Your task to perform on an android device: toggle location history Image 0: 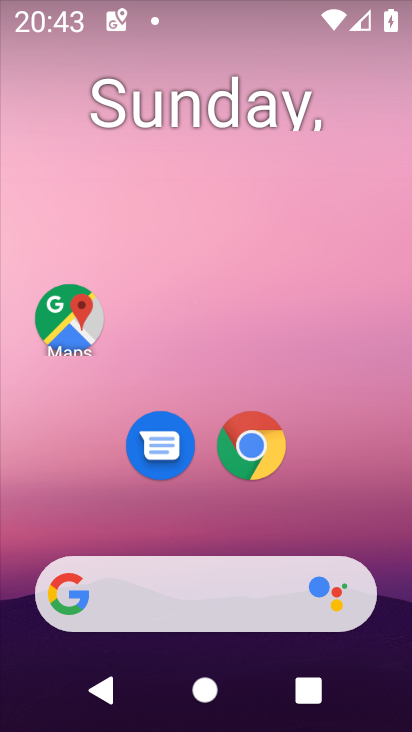
Step 0: press home button
Your task to perform on an android device: toggle location history Image 1: 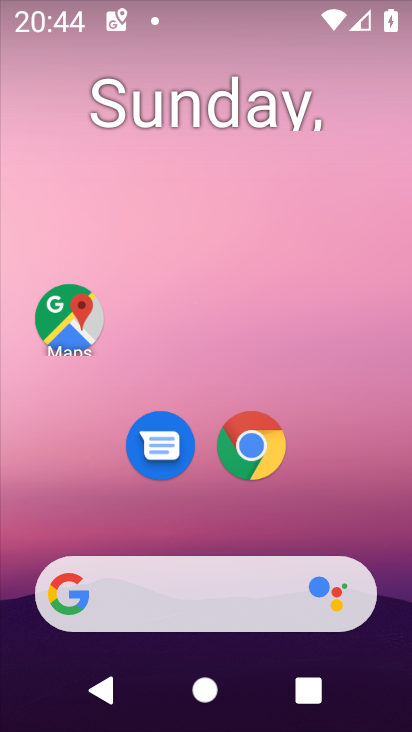
Step 1: drag from (36, 583) to (322, 107)
Your task to perform on an android device: toggle location history Image 2: 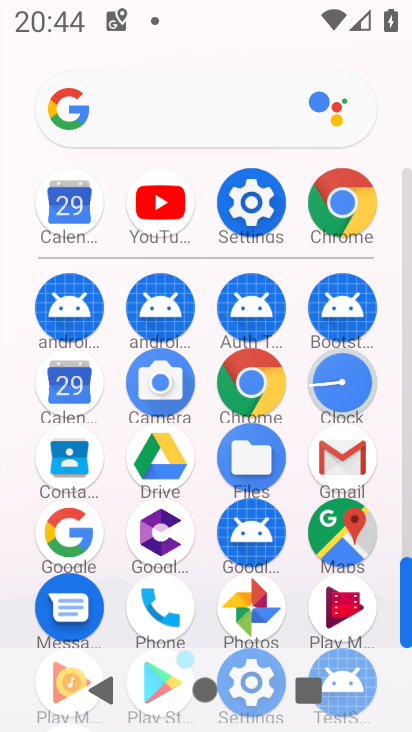
Step 2: click (250, 225)
Your task to perform on an android device: toggle location history Image 3: 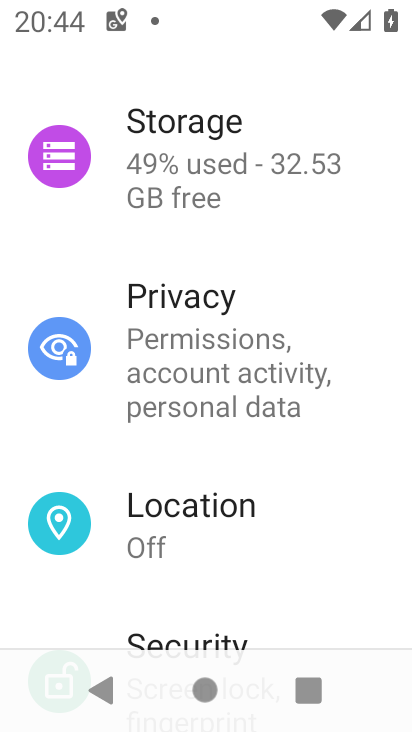
Step 3: click (130, 512)
Your task to perform on an android device: toggle location history Image 4: 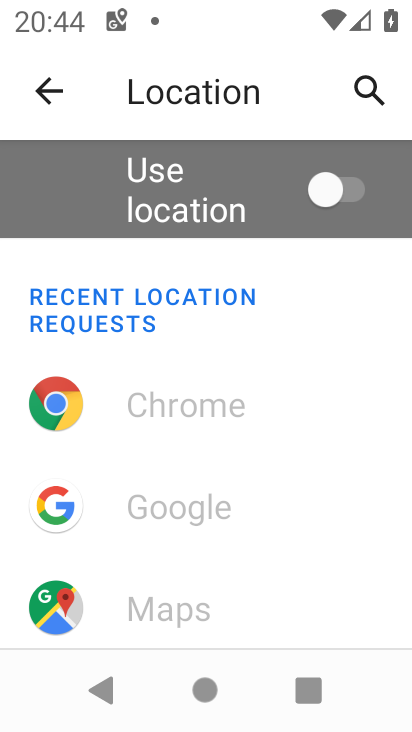
Step 4: drag from (10, 521) to (217, 82)
Your task to perform on an android device: toggle location history Image 5: 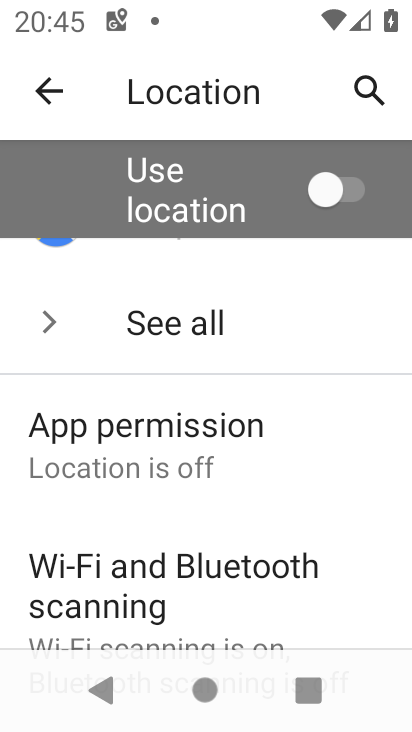
Step 5: drag from (9, 407) to (167, 142)
Your task to perform on an android device: toggle location history Image 6: 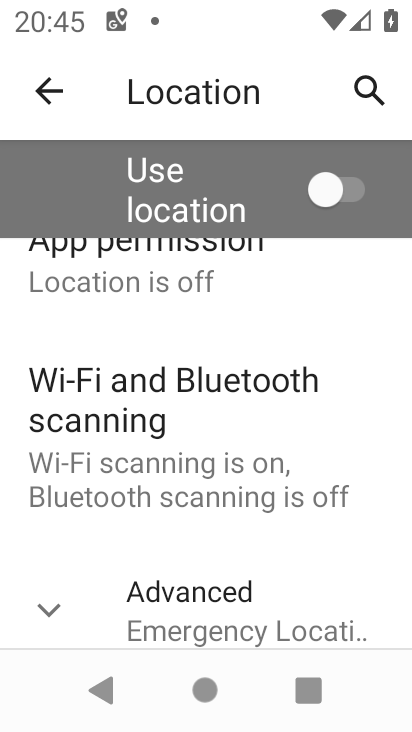
Step 6: click (99, 625)
Your task to perform on an android device: toggle location history Image 7: 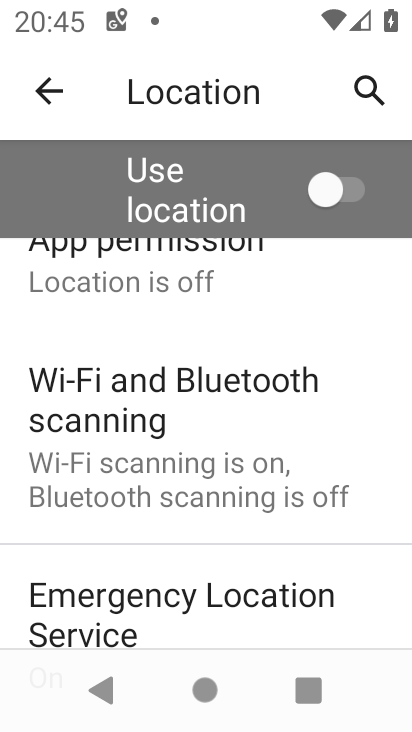
Step 7: drag from (13, 483) to (188, 151)
Your task to perform on an android device: toggle location history Image 8: 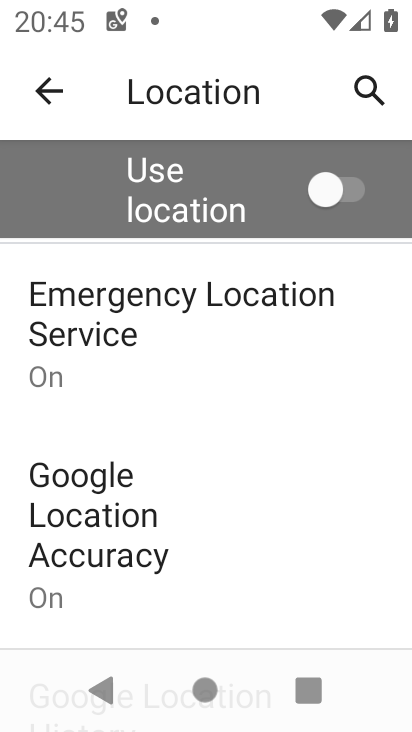
Step 8: drag from (5, 558) to (226, 233)
Your task to perform on an android device: toggle location history Image 9: 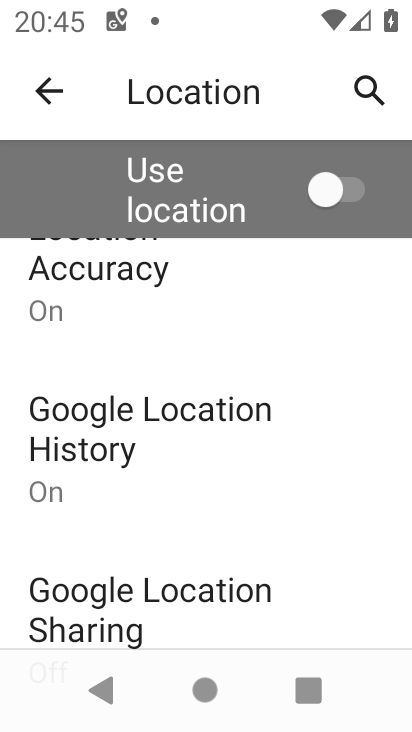
Step 9: click (152, 433)
Your task to perform on an android device: toggle location history Image 10: 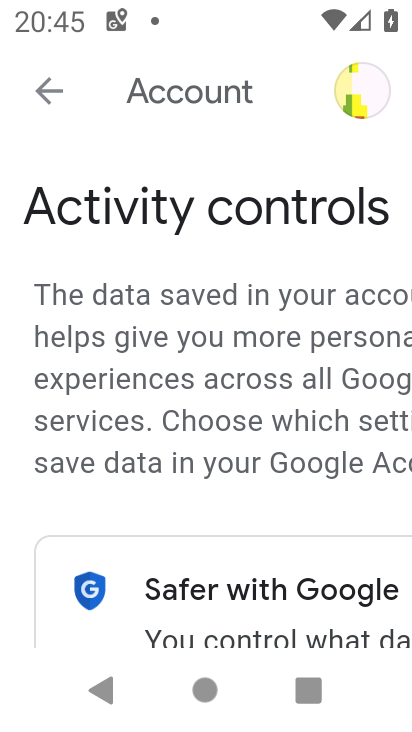
Step 10: drag from (18, 532) to (285, 82)
Your task to perform on an android device: toggle location history Image 11: 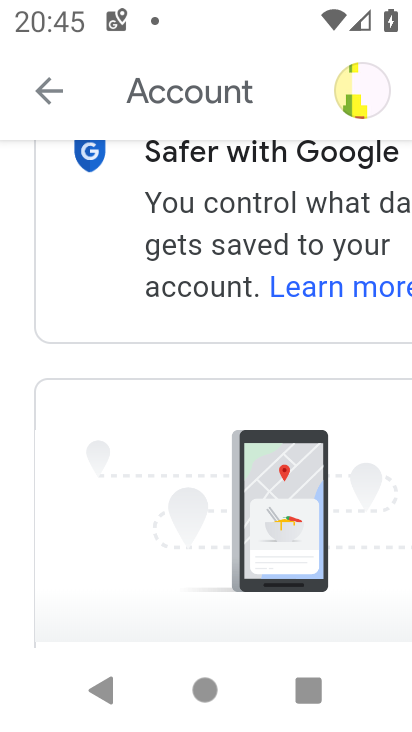
Step 11: drag from (4, 633) to (309, 158)
Your task to perform on an android device: toggle location history Image 12: 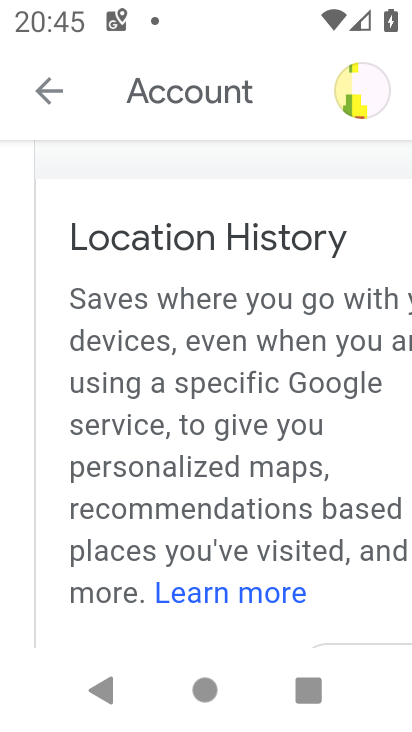
Step 12: drag from (7, 542) to (301, 130)
Your task to perform on an android device: toggle location history Image 13: 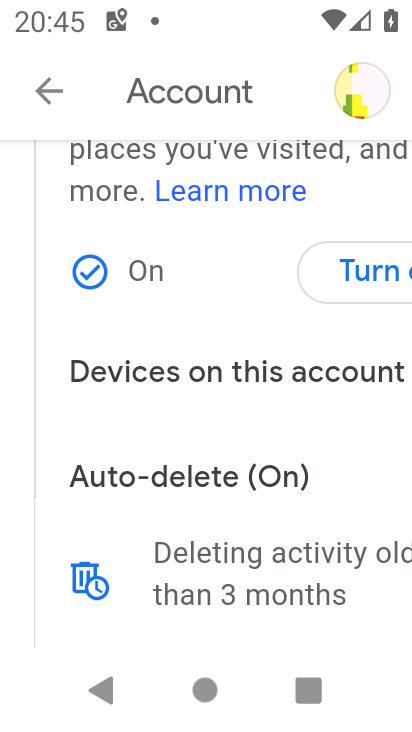
Step 13: click (334, 256)
Your task to perform on an android device: toggle location history Image 14: 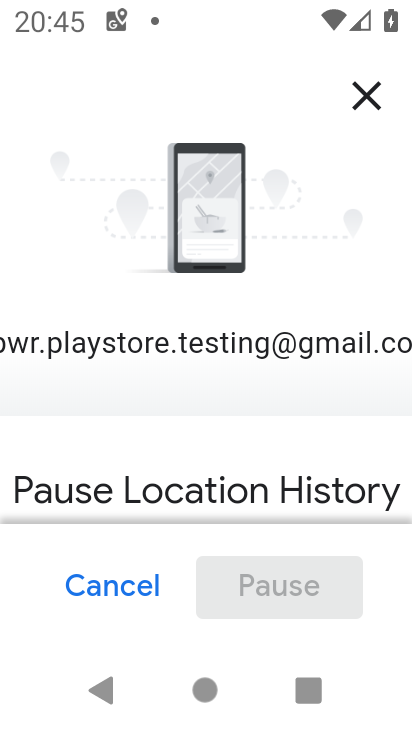
Step 14: click (269, 108)
Your task to perform on an android device: toggle location history Image 15: 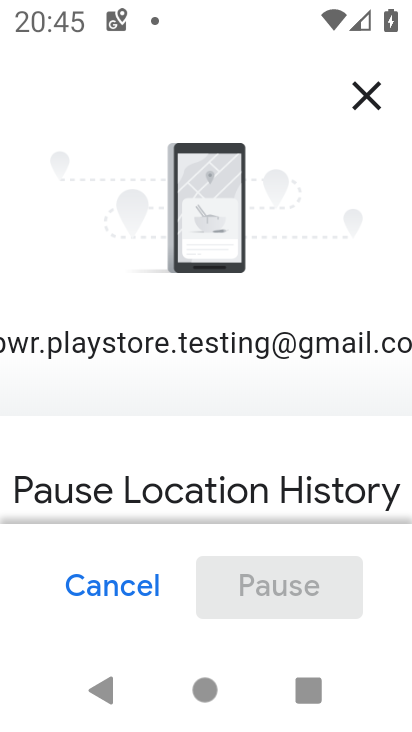
Step 15: drag from (13, 441) to (257, 107)
Your task to perform on an android device: toggle location history Image 16: 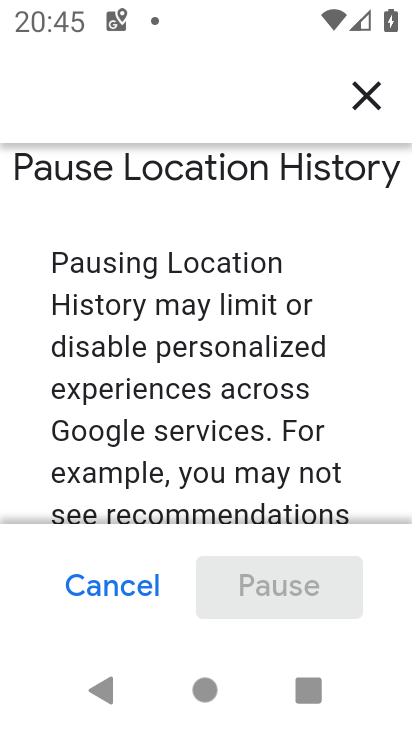
Step 16: drag from (39, 397) to (263, 120)
Your task to perform on an android device: toggle location history Image 17: 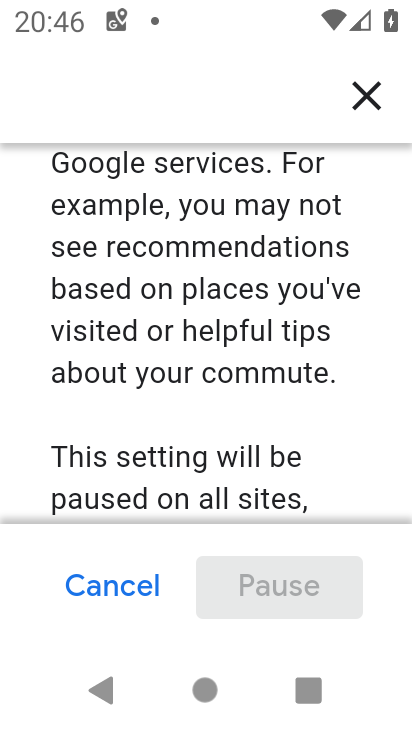
Step 17: drag from (1, 624) to (244, 125)
Your task to perform on an android device: toggle location history Image 18: 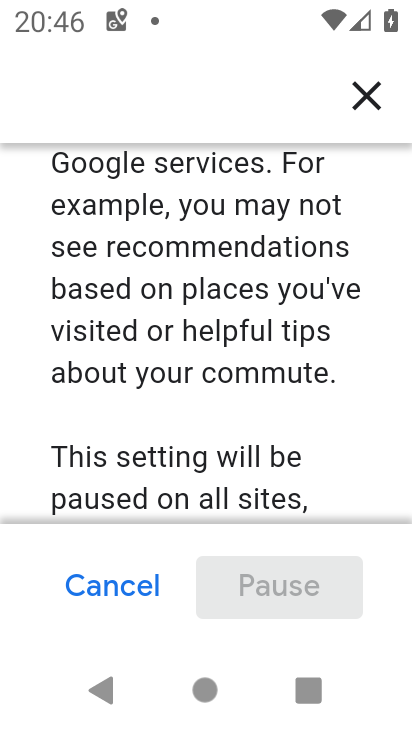
Step 18: drag from (0, 380) to (220, 169)
Your task to perform on an android device: toggle location history Image 19: 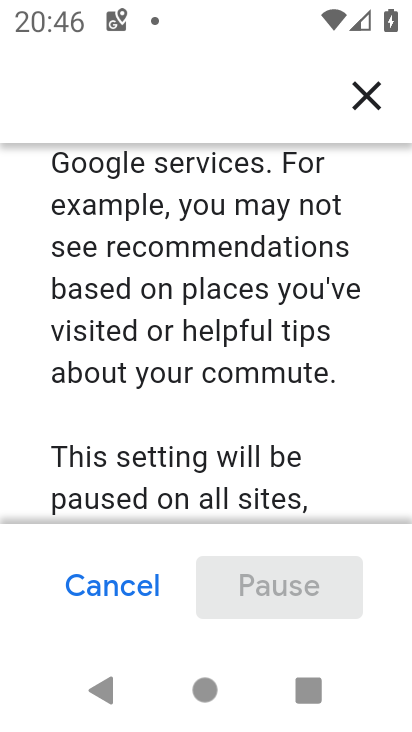
Step 19: drag from (22, 449) to (231, 189)
Your task to perform on an android device: toggle location history Image 20: 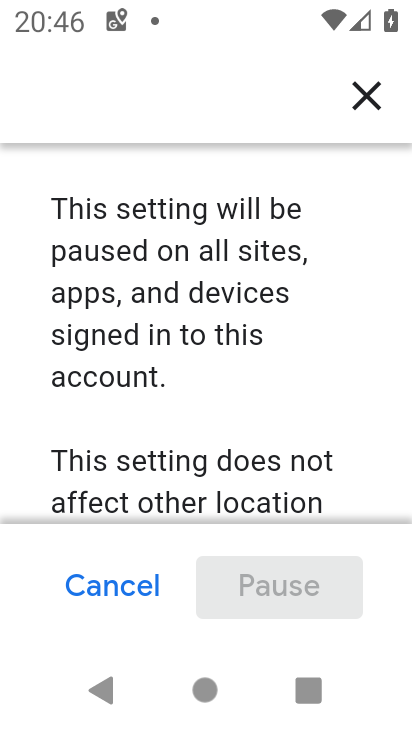
Step 20: drag from (39, 440) to (263, 120)
Your task to perform on an android device: toggle location history Image 21: 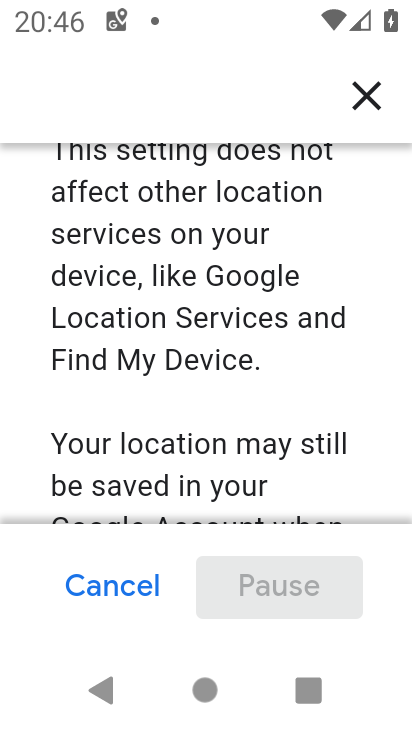
Step 21: drag from (51, 398) to (282, 174)
Your task to perform on an android device: toggle location history Image 22: 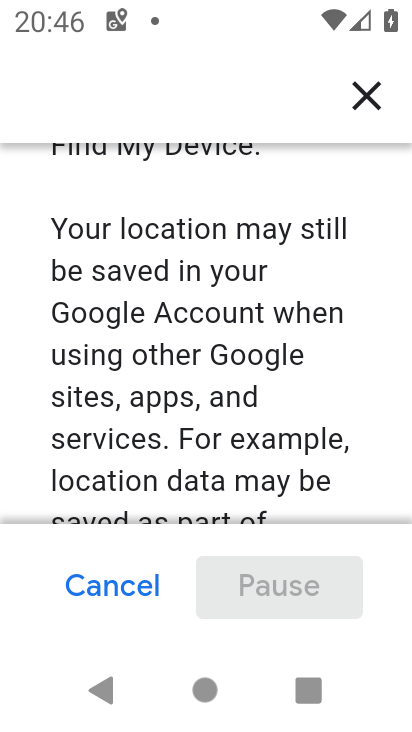
Step 22: drag from (10, 484) to (292, 114)
Your task to perform on an android device: toggle location history Image 23: 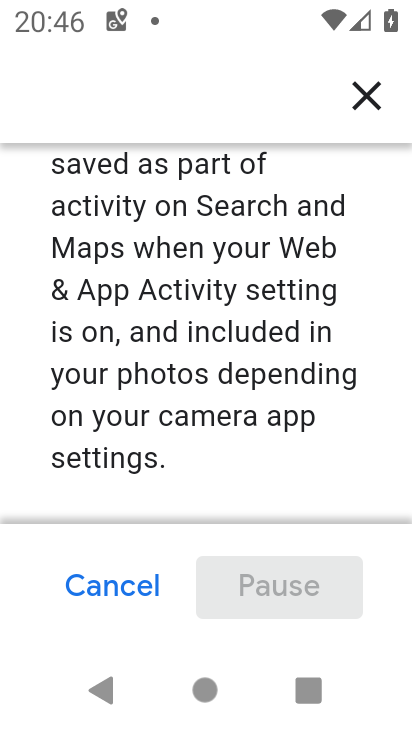
Step 23: drag from (25, 433) to (304, 139)
Your task to perform on an android device: toggle location history Image 24: 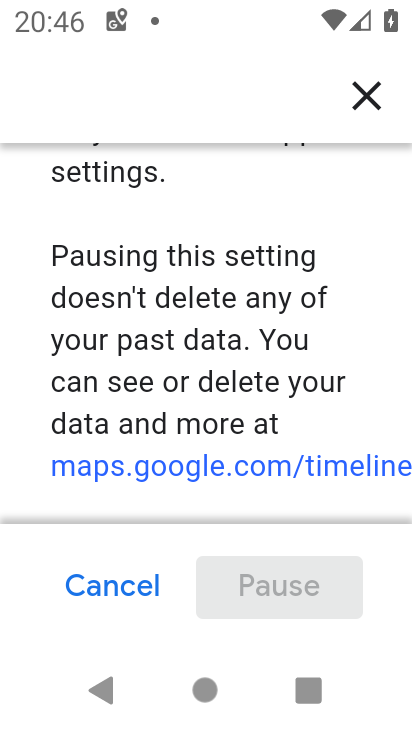
Step 24: drag from (42, 429) to (336, 117)
Your task to perform on an android device: toggle location history Image 25: 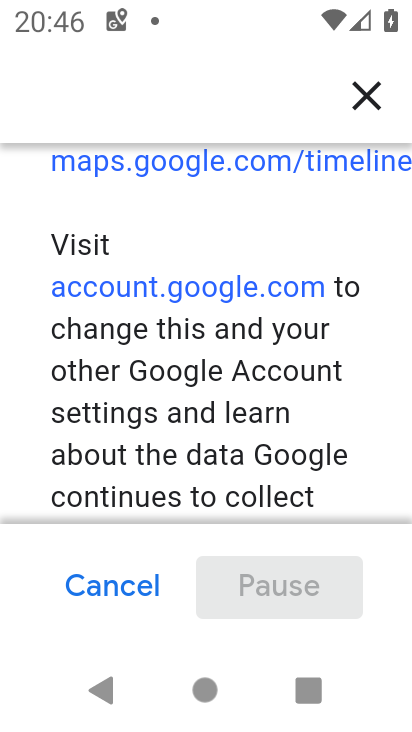
Step 25: drag from (5, 473) to (303, 174)
Your task to perform on an android device: toggle location history Image 26: 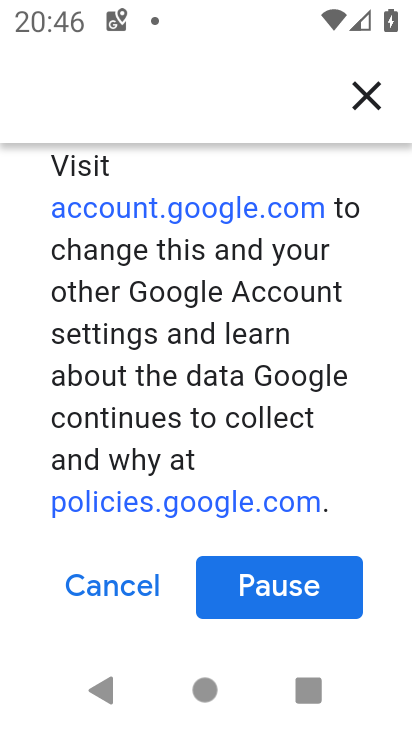
Step 26: click (216, 576)
Your task to perform on an android device: toggle location history Image 27: 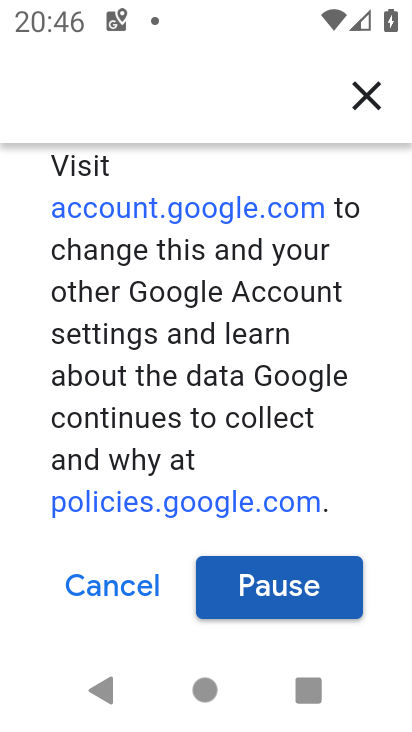
Step 27: click (269, 584)
Your task to perform on an android device: toggle location history Image 28: 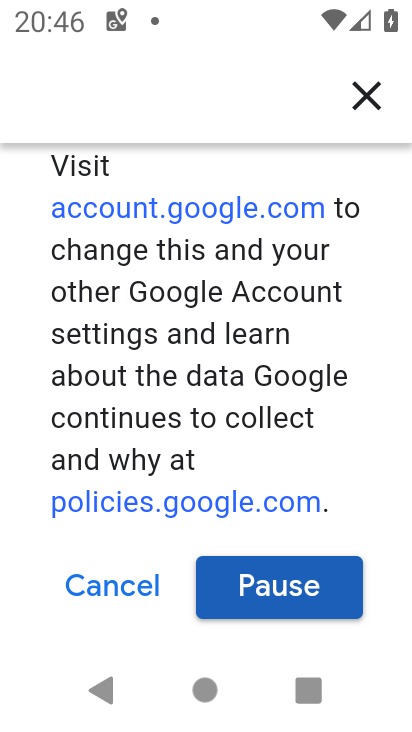
Step 28: task complete